Your task to perform on an android device: What is the recent news? Image 0: 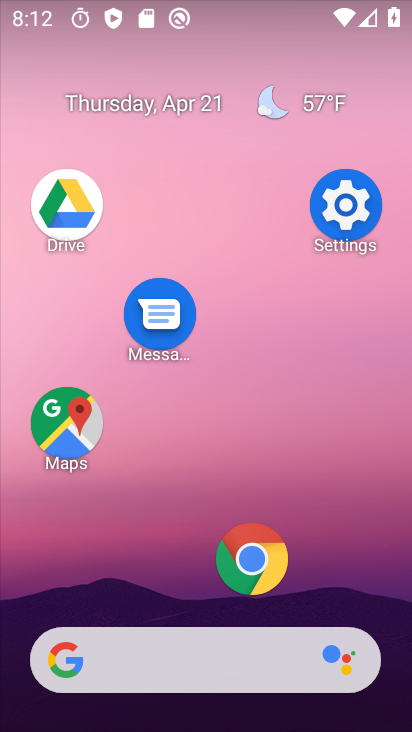
Step 0: drag from (369, 722) to (153, 76)
Your task to perform on an android device: What is the recent news? Image 1: 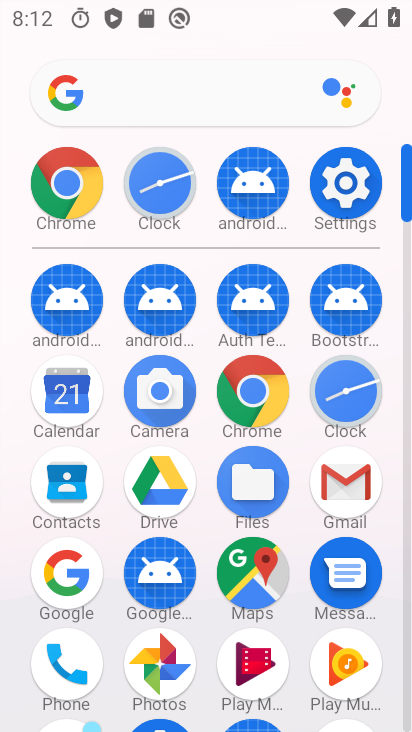
Step 1: drag from (271, 670) to (314, 518)
Your task to perform on an android device: What is the recent news? Image 2: 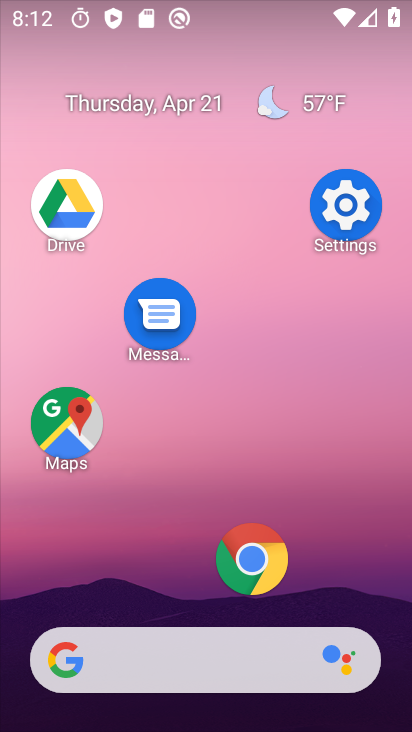
Step 2: press home button
Your task to perform on an android device: What is the recent news? Image 3: 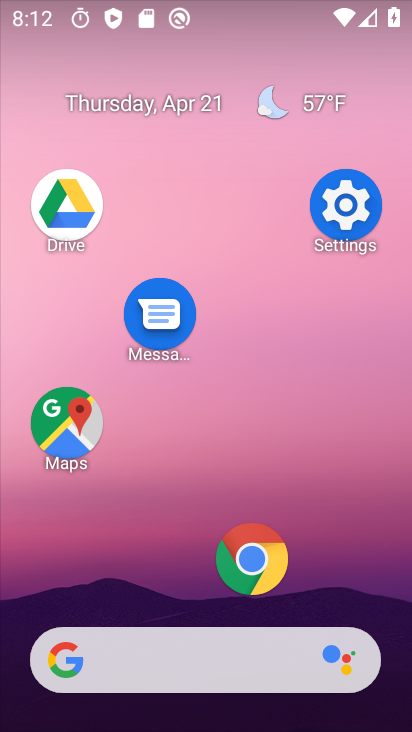
Step 3: drag from (1, 272) to (395, 277)
Your task to perform on an android device: What is the recent news? Image 4: 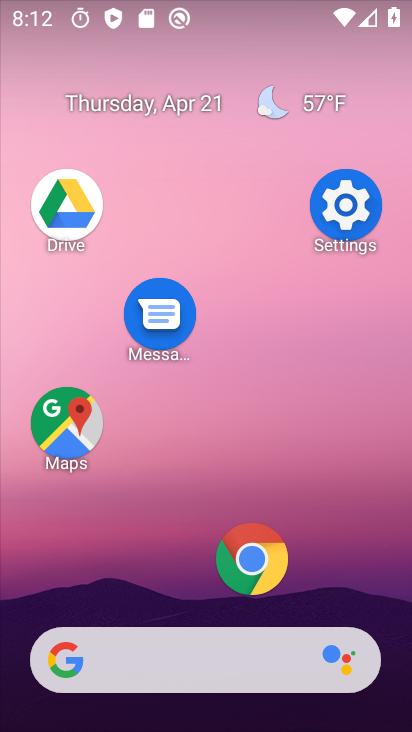
Step 4: drag from (371, 203) to (393, 309)
Your task to perform on an android device: What is the recent news? Image 5: 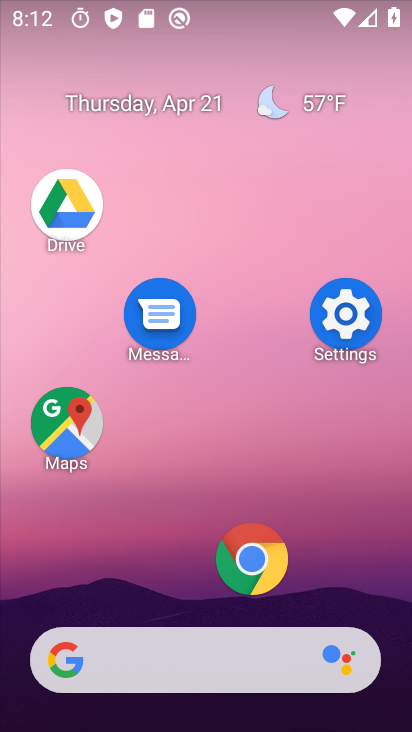
Step 5: drag from (354, 277) to (327, 352)
Your task to perform on an android device: What is the recent news? Image 6: 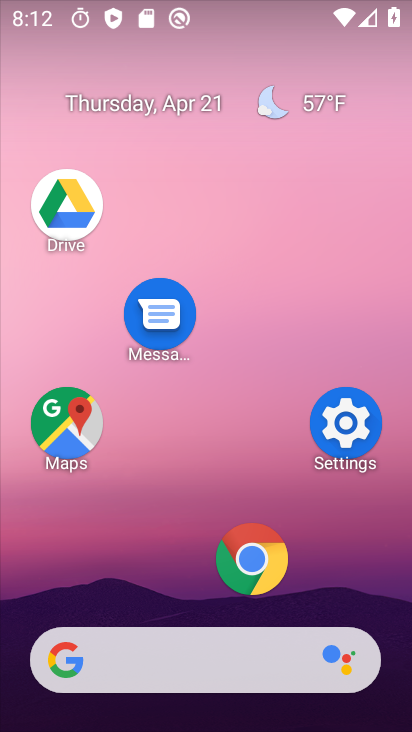
Step 6: drag from (96, 210) to (284, 183)
Your task to perform on an android device: What is the recent news? Image 7: 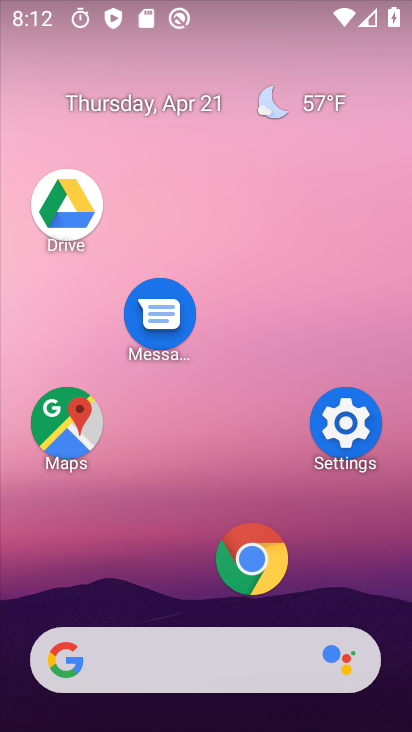
Step 7: drag from (341, 210) to (404, 209)
Your task to perform on an android device: What is the recent news? Image 8: 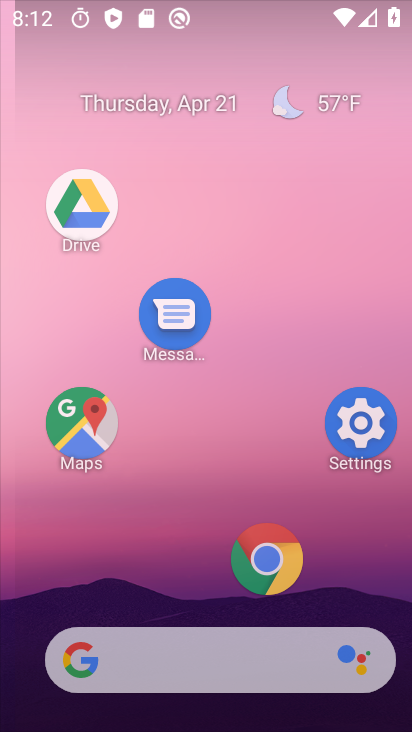
Step 8: click (396, 145)
Your task to perform on an android device: What is the recent news? Image 9: 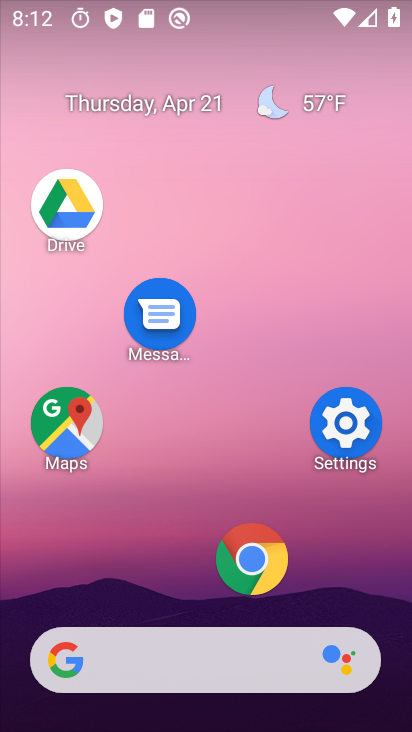
Step 9: task complete